Your task to perform on an android device: Go to battery settings Image 0: 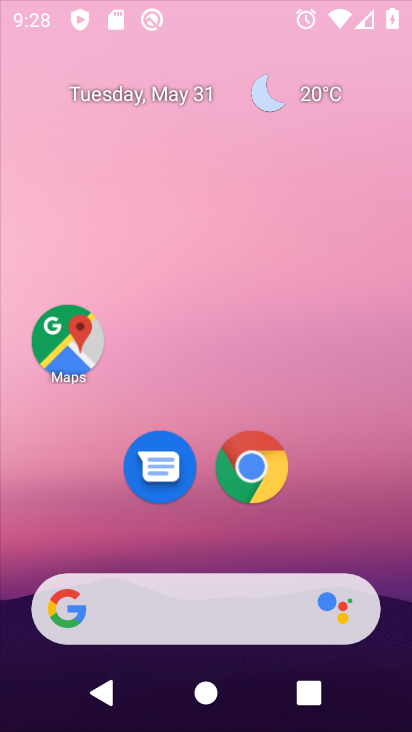
Step 0: click (396, 542)
Your task to perform on an android device: Go to battery settings Image 1: 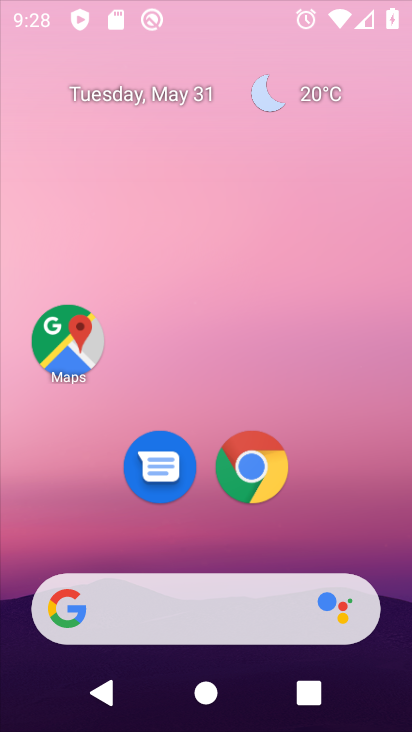
Step 1: drag from (210, 548) to (235, 192)
Your task to perform on an android device: Go to battery settings Image 2: 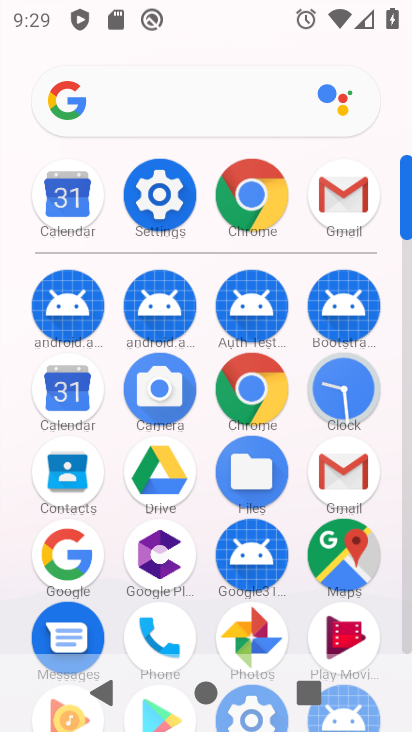
Step 2: drag from (202, 605) to (225, 163)
Your task to perform on an android device: Go to battery settings Image 3: 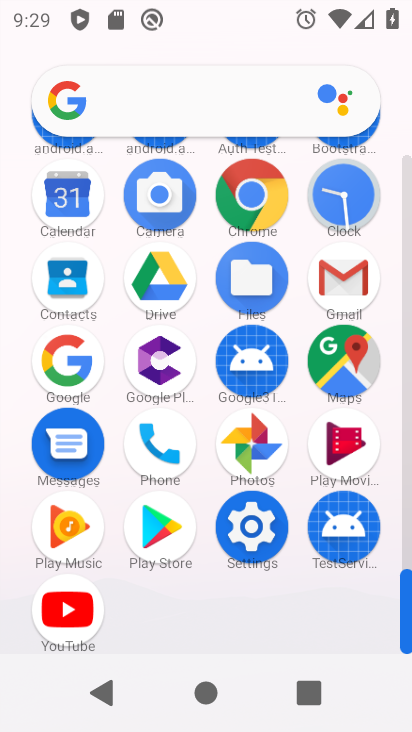
Step 3: click (258, 525)
Your task to perform on an android device: Go to battery settings Image 4: 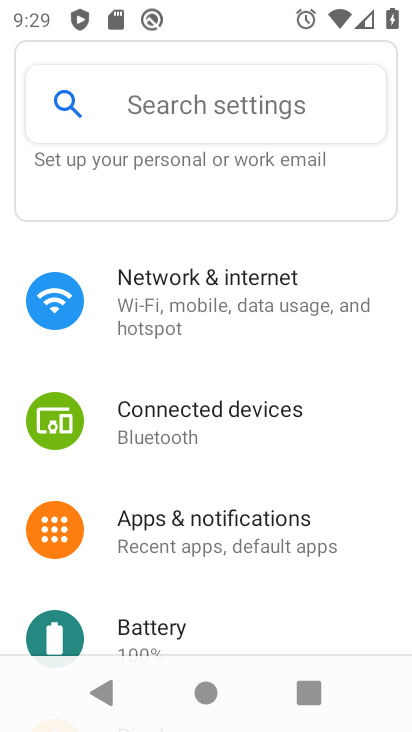
Step 4: drag from (234, 583) to (301, 215)
Your task to perform on an android device: Go to battery settings Image 5: 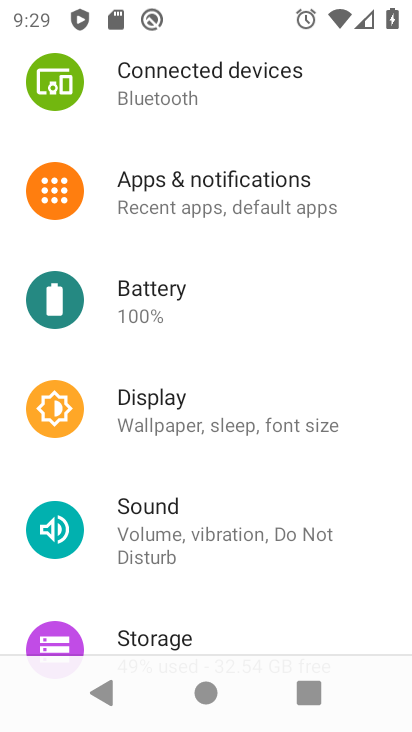
Step 5: click (209, 322)
Your task to perform on an android device: Go to battery settings Image 6: 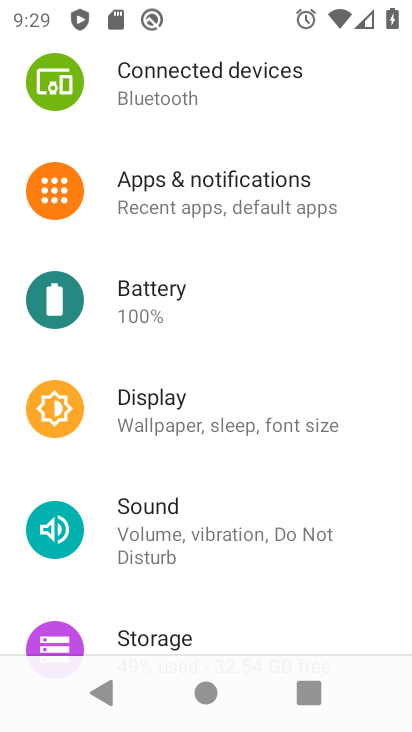
Step 6: click (208, 323)
Your task to perform on an android device: Go to battery settings Image 7: 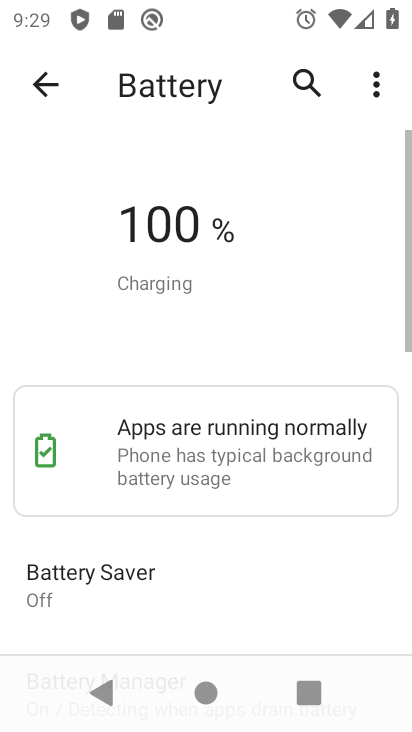
Step 7: task complete